Your task to perform on an android device: delete browsing data in the chrome app Image 0: 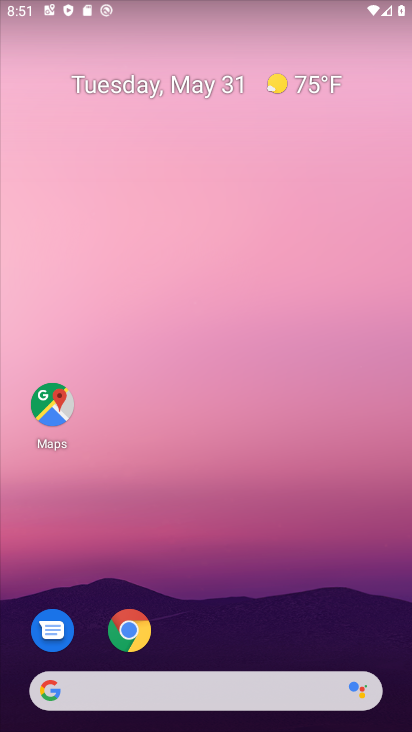
Step 0: drag from (225, 580) to (307, 192)
Your task to perform on an android device: delete browsing data in the chrome app Image 1: 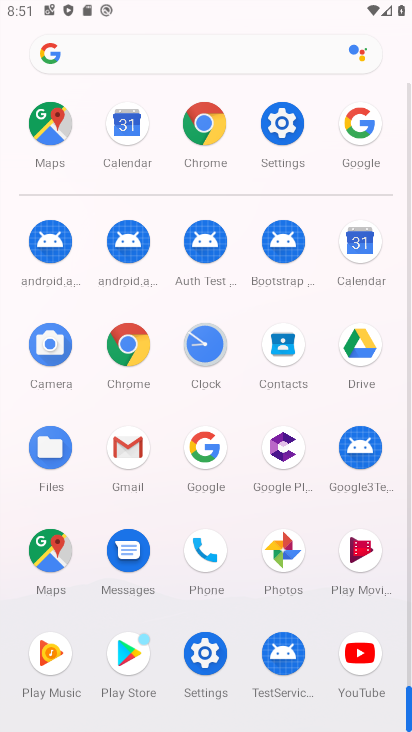
Step 1: click (128, 351)
Your task to perform on an android device: delete browsing data in the chrome app Image 2: 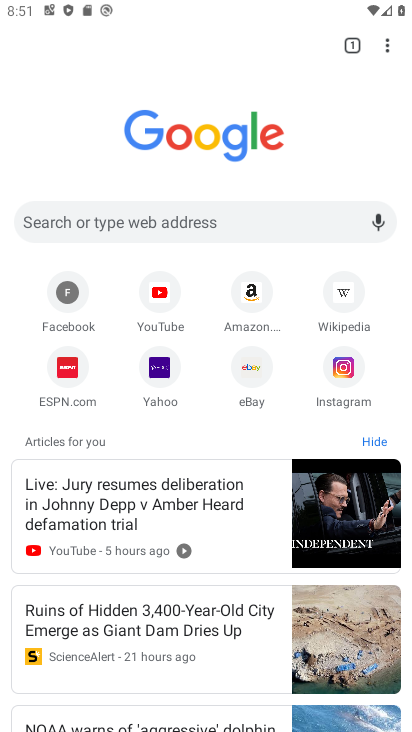
Step 2: click (388, 43)
Your task to perform on an android device: delete browsing data in the chrome app Image 3: 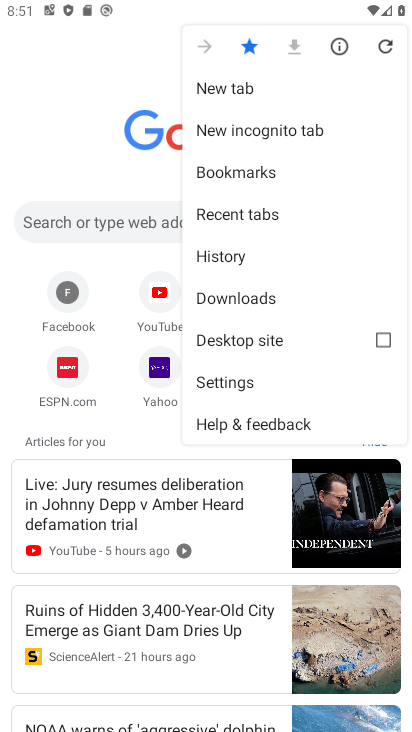
Step 3: click (231, 260)
Your task to perform on an android device: delete browsing data in the chrome app Image 4: 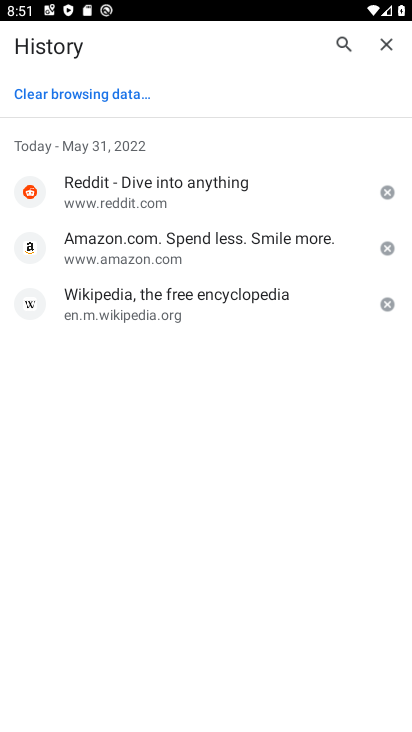
Step 4: click (95, 79)
Your task to perform on an android device: delete browsing data in the chrome app Image 5: 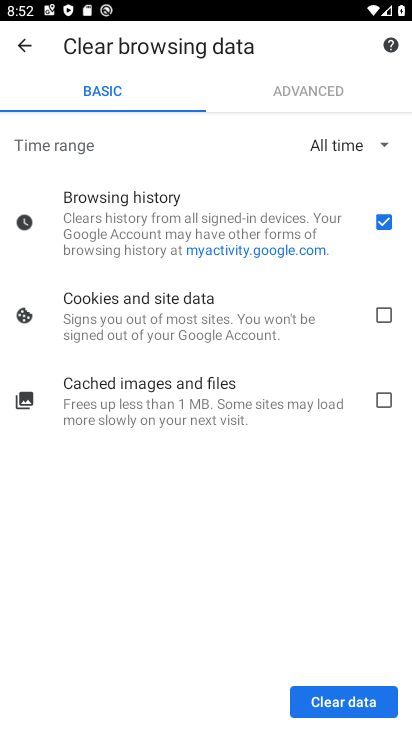
Step 5: click (336, 702)
Your task to perform on an android device: delete browsing data in the chrome app Image 6: 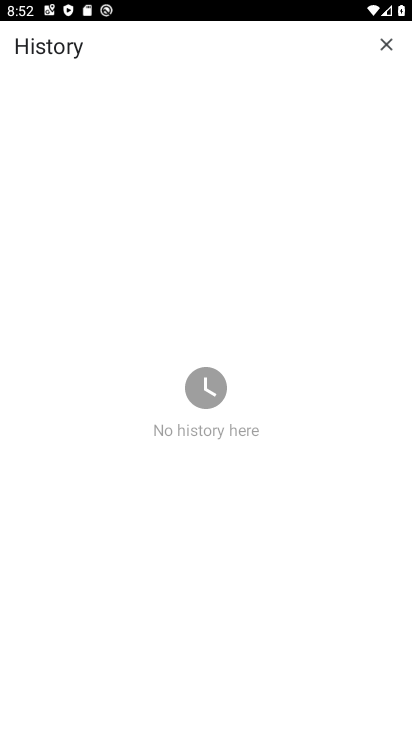
Step 6: task complete